Your task to perform on an android device: Show me recent news Image 0: 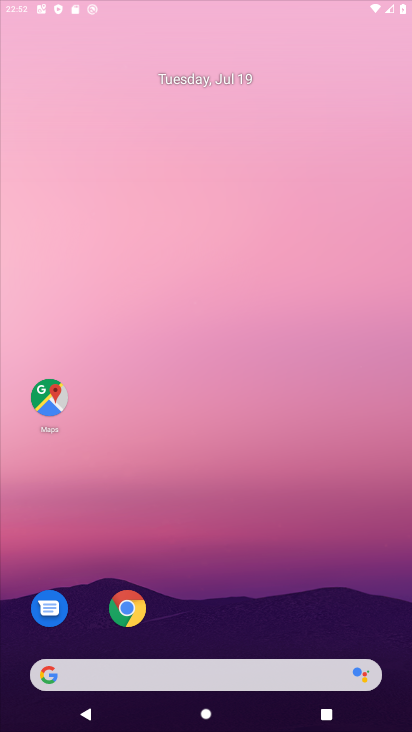
Step 0: drag from (302, 352) to (310, 101)
Your task to perform on an android device: Show me recent news Image 1: 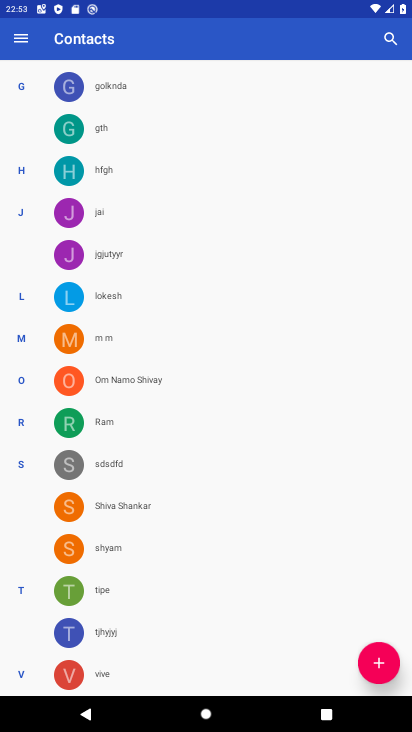
Step 1: press home button
Your task to perform on an android device: Show me recent news Image 2: 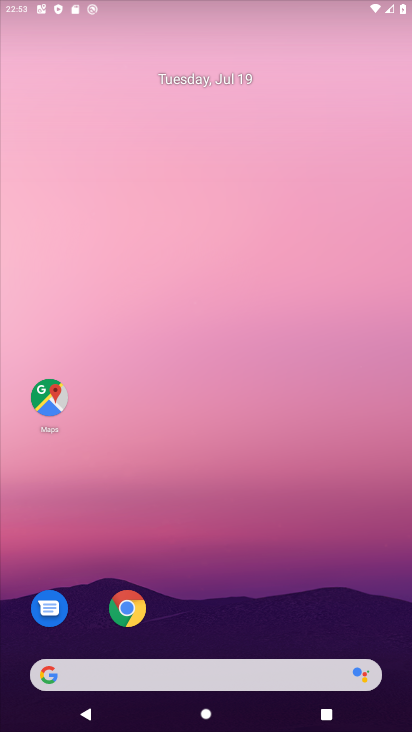
Step 2: drag from (307, 630) to (243, 52)
Your task to perform on an android device: Show me recent news Image 3: 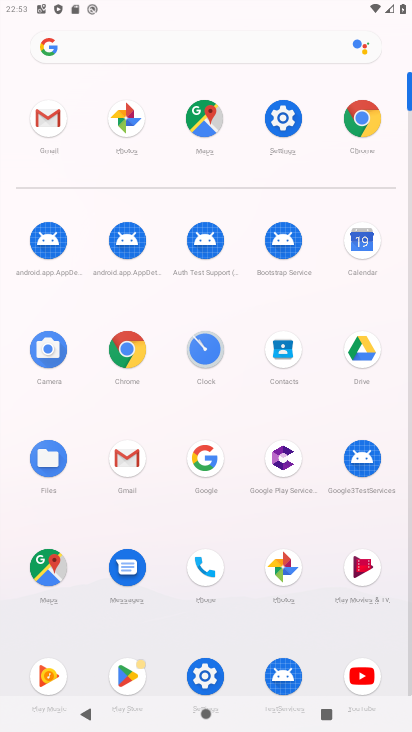
Step 3: click (364, 114)
Your task to perform on an android device: Show me recent news Image 4: 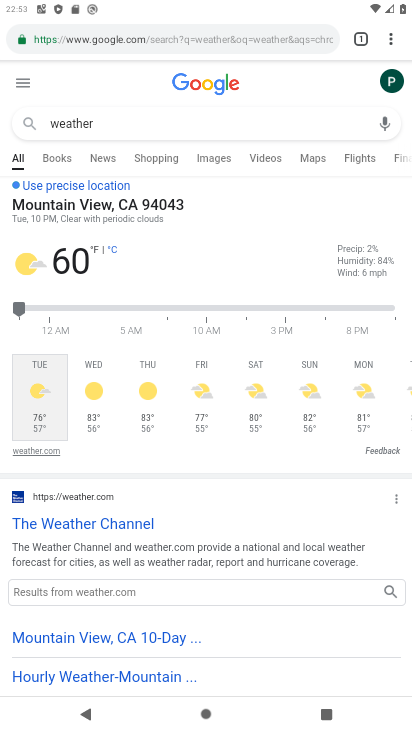
Step 4: click (164, 35)
Your task to perform on an android device: Show me recent news Image 5: 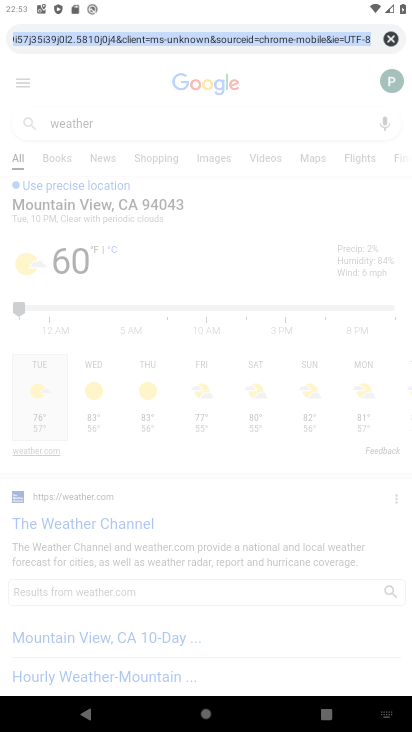
Step 5: type "news"
Your task to perform on an android device: Show me recent news Image 6: 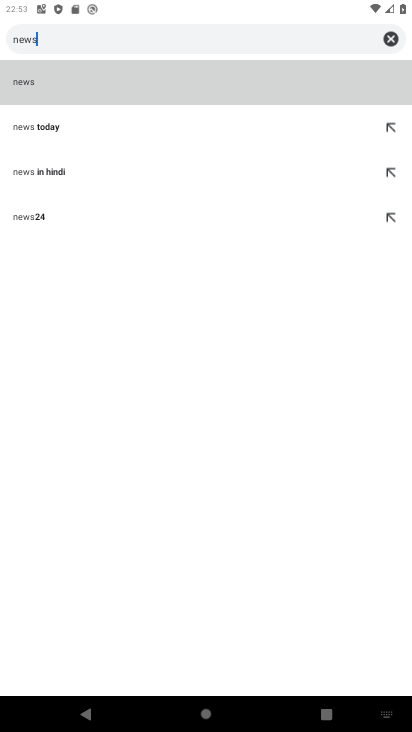
Step 6: click (43, 80)
Your task to perform on an android device: Show me recent news Image 7: 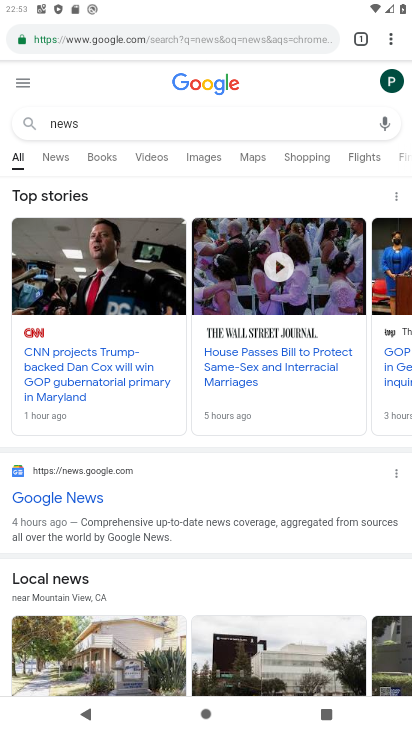
Step 7: click (70, 500)
Your task to perform on an android device: Show me recent news Image 8: 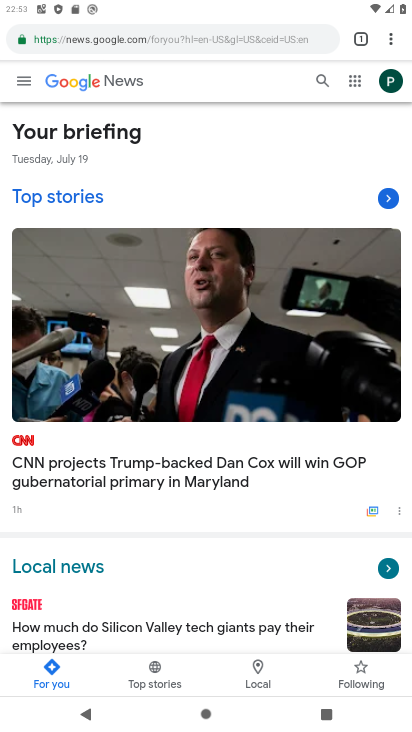
Step 8: task complete